Your task to perform on an android device: Check the news Image 0: 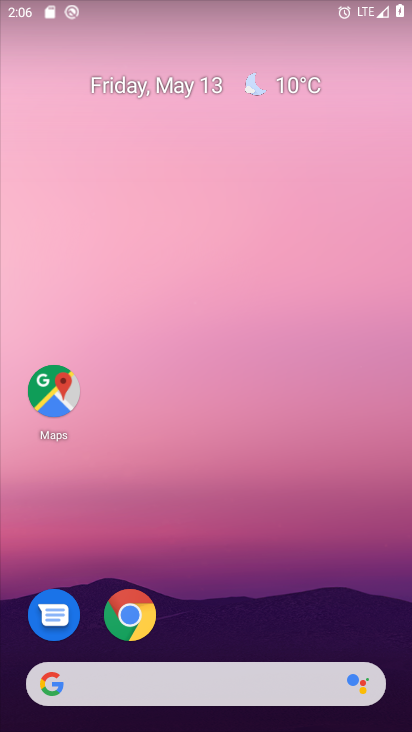
Step 0: click (287, 694)
Your task to perform on an android device: Check the news Image 1: 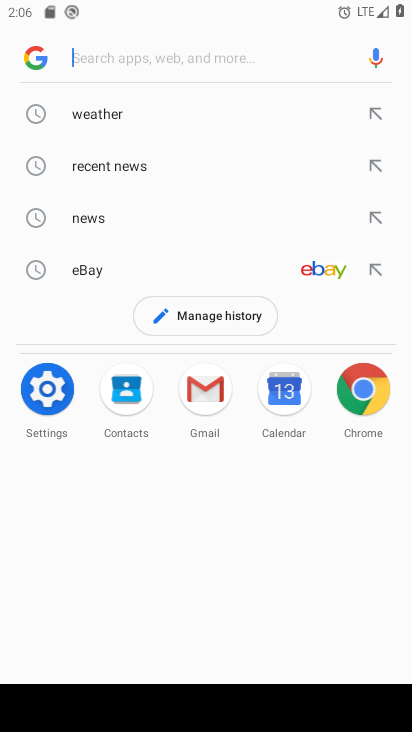
Step 1: click (81, 211)
Your task to perform on an android device: Check the news Image 2: 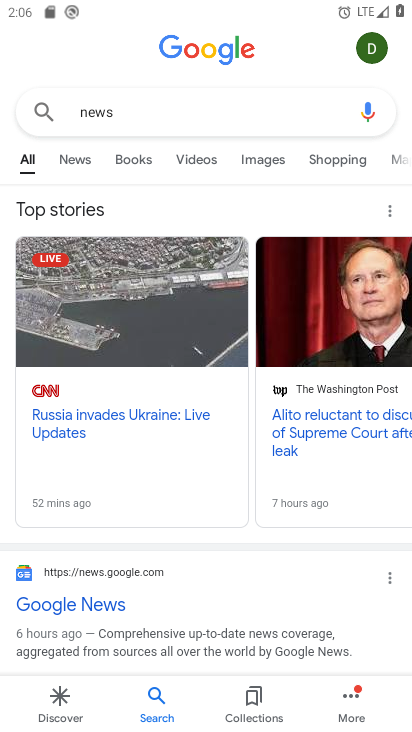
Step 2: click (80, 159)
Your task to perform on an android device: Check the news Image 3: 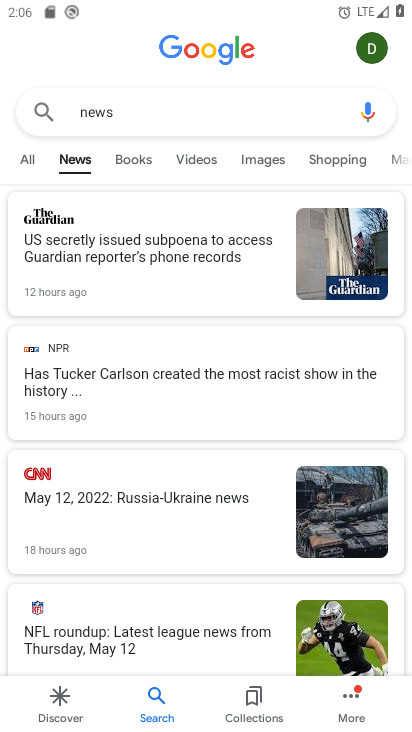
Step 3: task complete